Your task to perform on an android device: Show the shopping cart on bestbuy.com. Image 0: 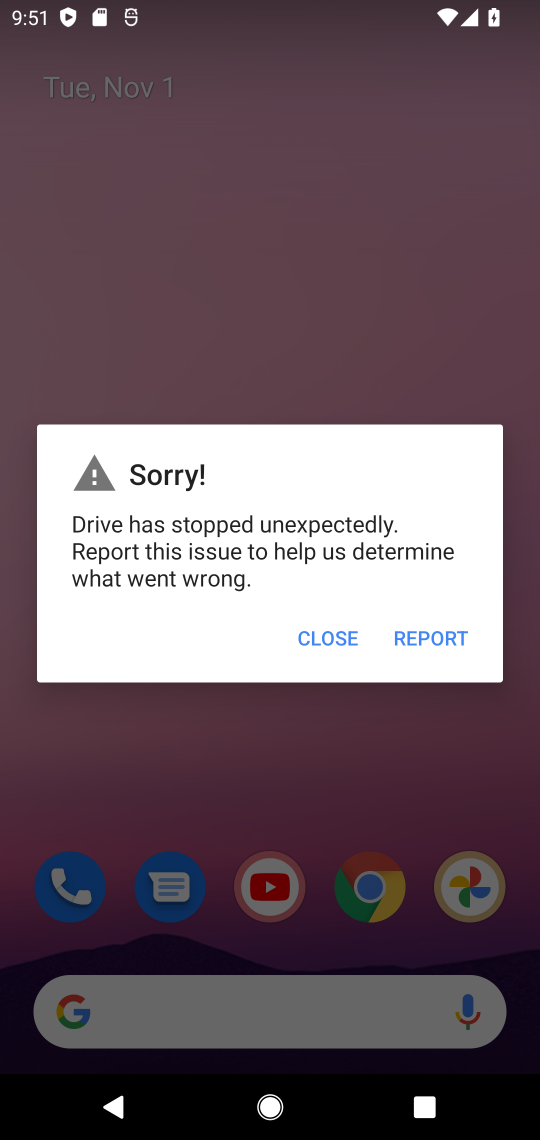
Step 0: press home button
Your task to perform on an android device: Show the shopping cart on bestbuy.com. Image 1: 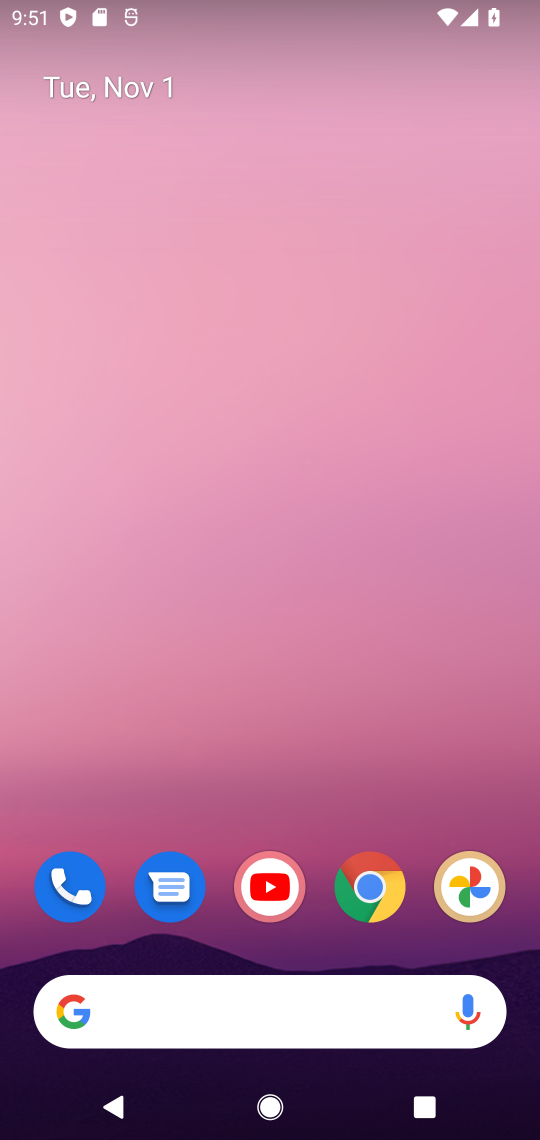
Step 1: click (379, 889)
Your task to perform on an android device: Show the shopping cart on bestbuy.com. Image 2: 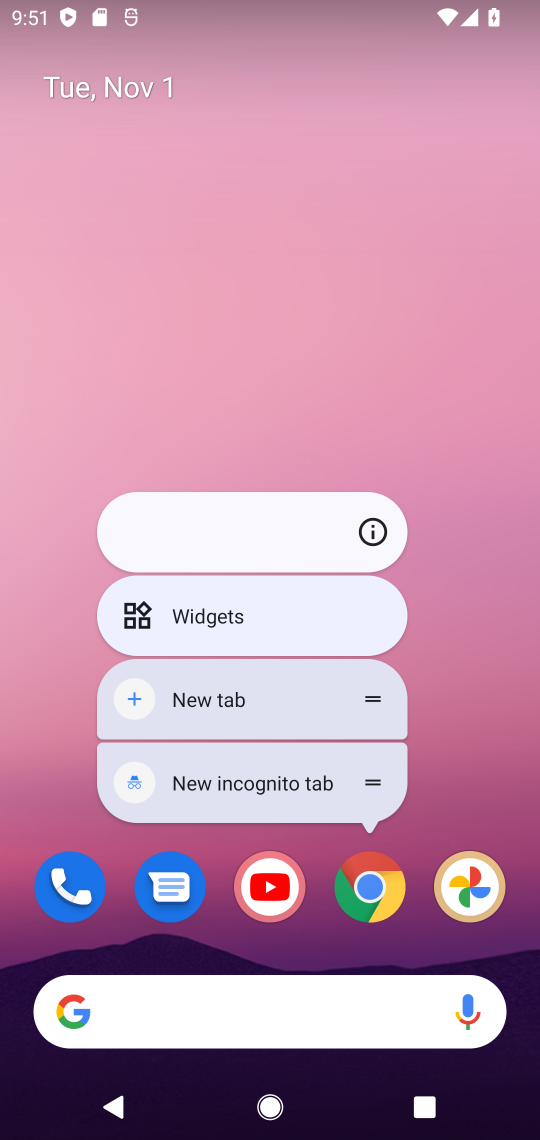
Step 2: click (391, 898)
Your task to perform on an android device: Show the shopping cart on bestbuy.com. Image 3: 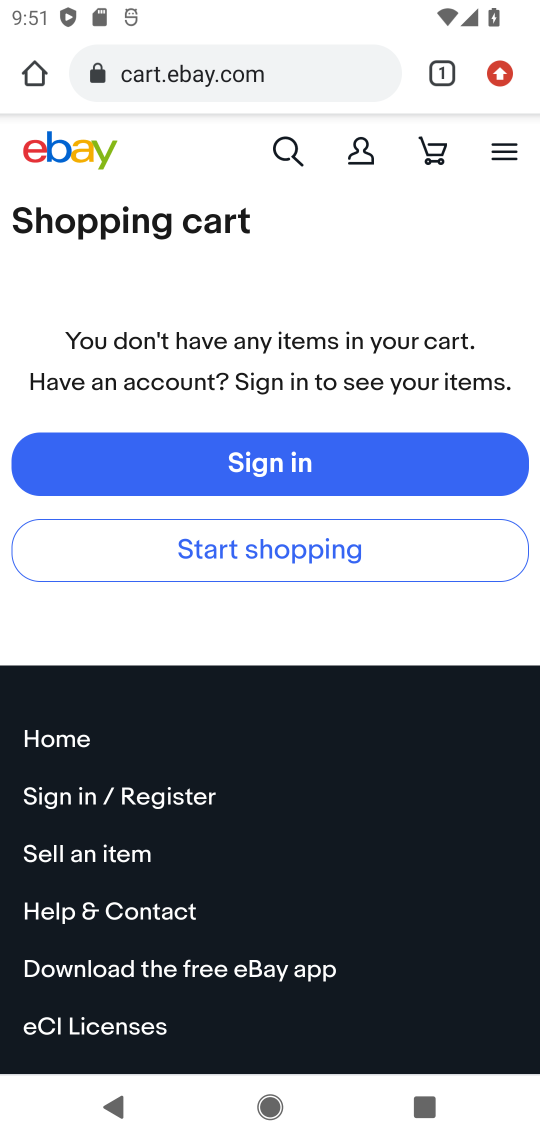
Step 3: click (296, 73)
Your task to perform on an android device: Show the shopping cart on bestbuy.com. Image 4: 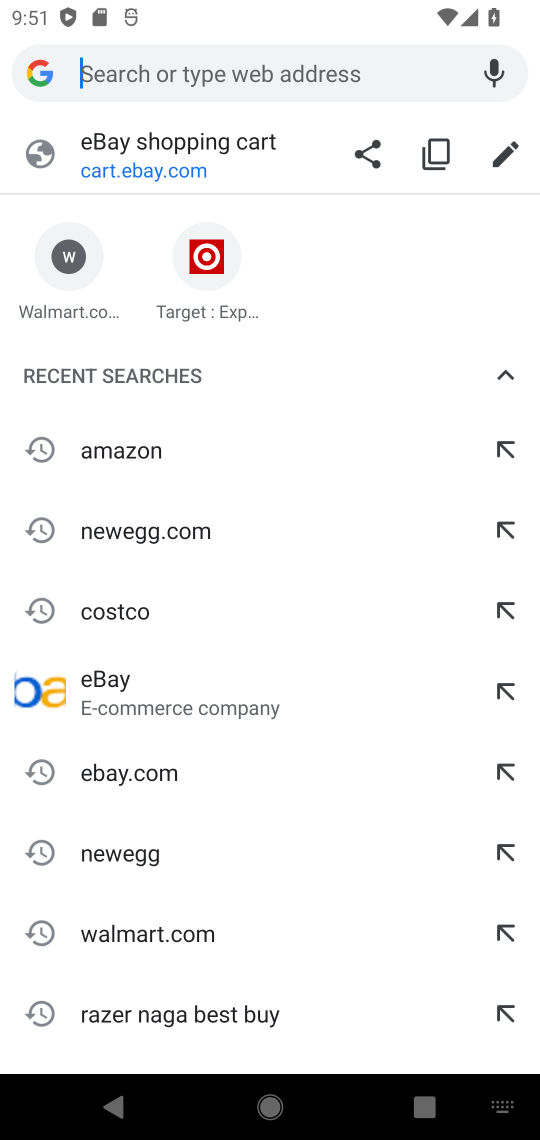
Step 4: type "bestbuy.com"
Your task to perform on an android device: Show the shopping cart on bestbuy.com. Image 5: 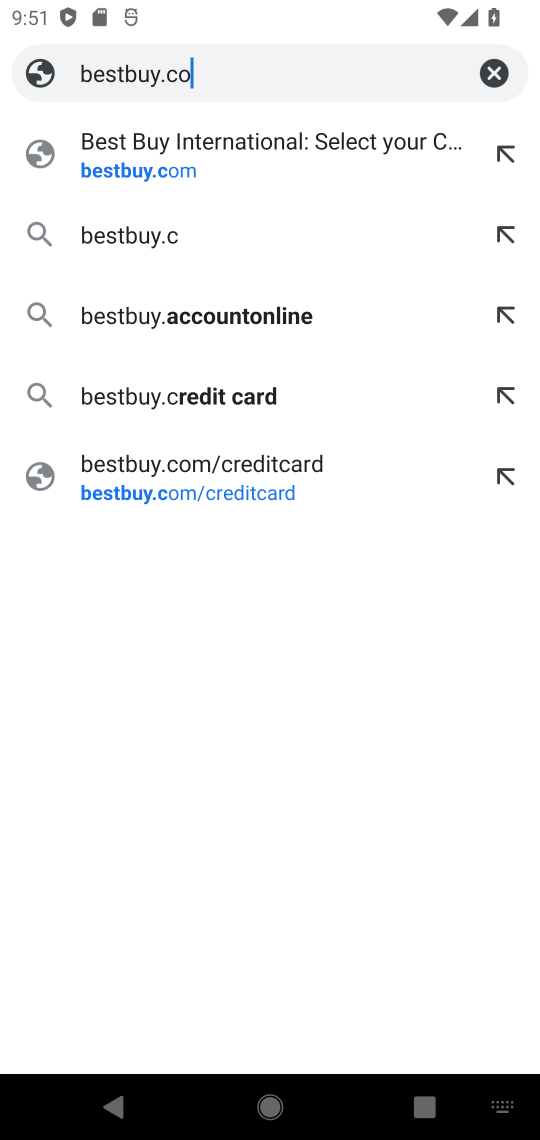
Step 5: press enter
Your task to perform on an android device: Show the shopping cart on bestbuy.com. Image 6: 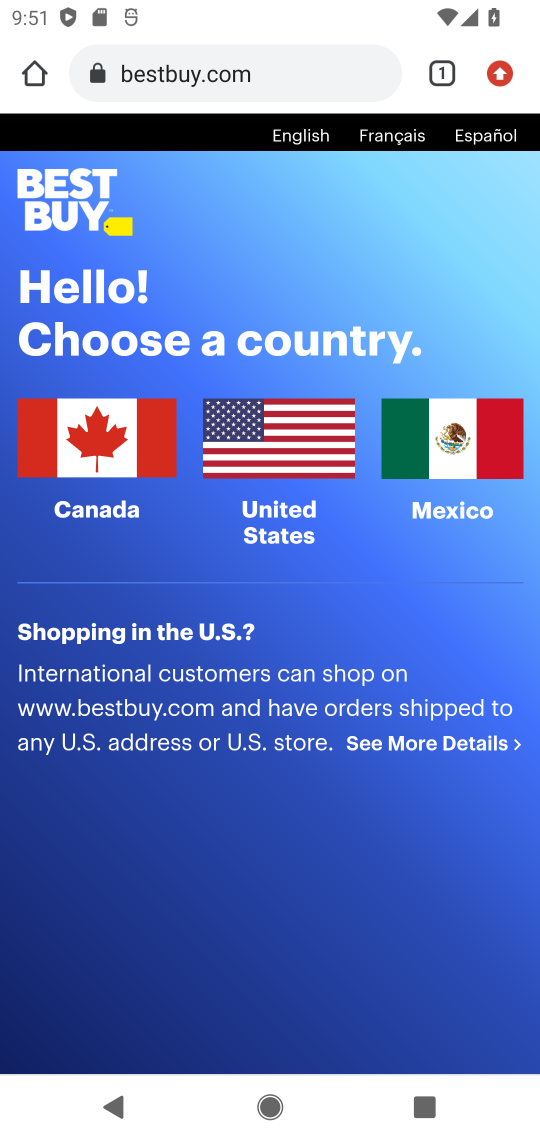
Step 6: click (275, 447)
Your task to perform on an android device: Show the shopping cart on bestbuy.com. Image 7: 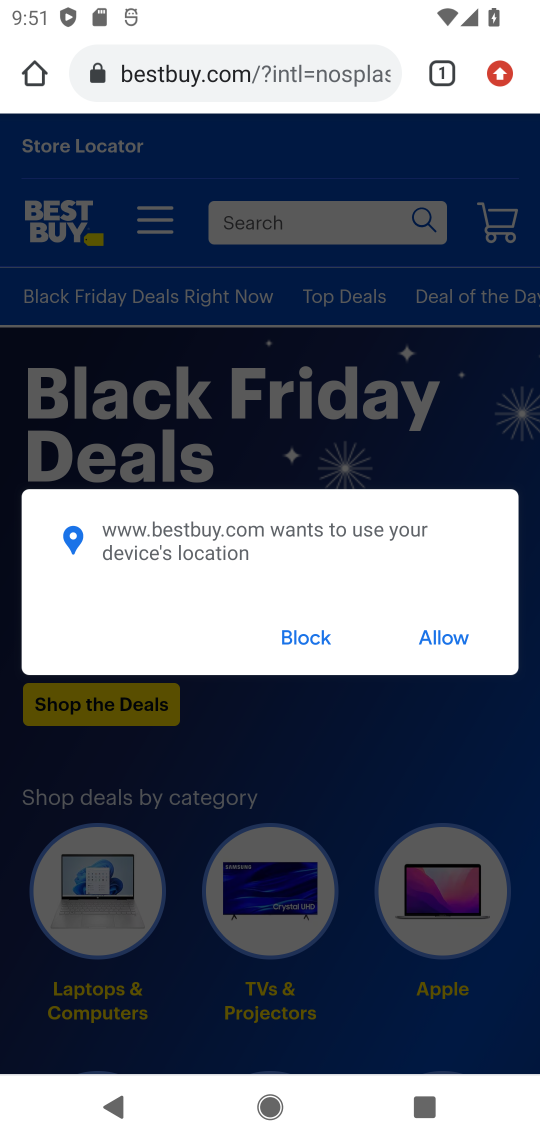
Step 7: click (318, 640)
Your task to perform on an android device: Show the shopping cart on bestbuy.com. Image 8: 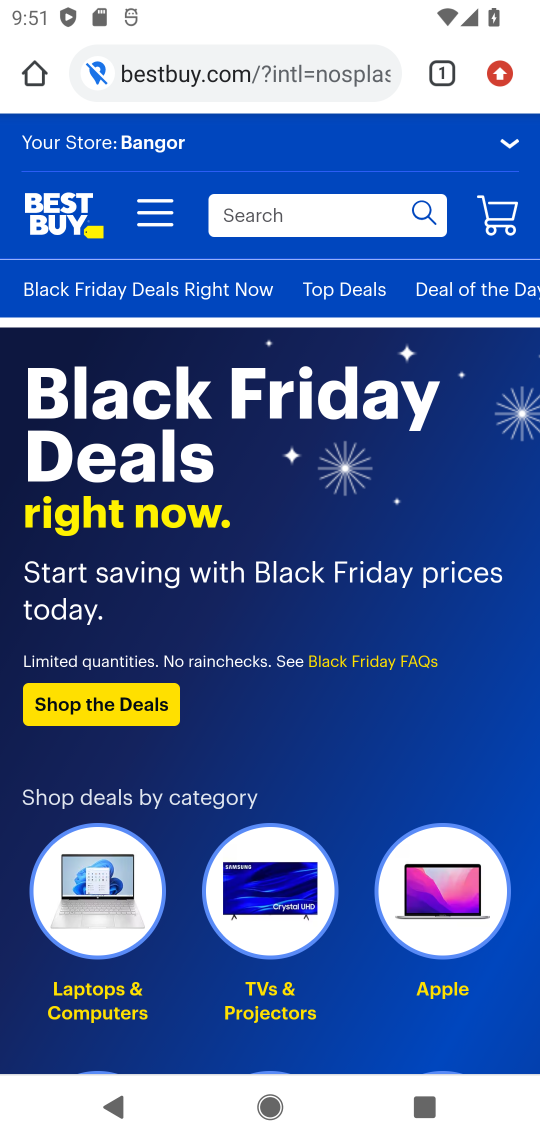
Step 8: click (494, 216)
Your task to perform on an android device: Show the shopping cart on bestbuy.com. Image 9: 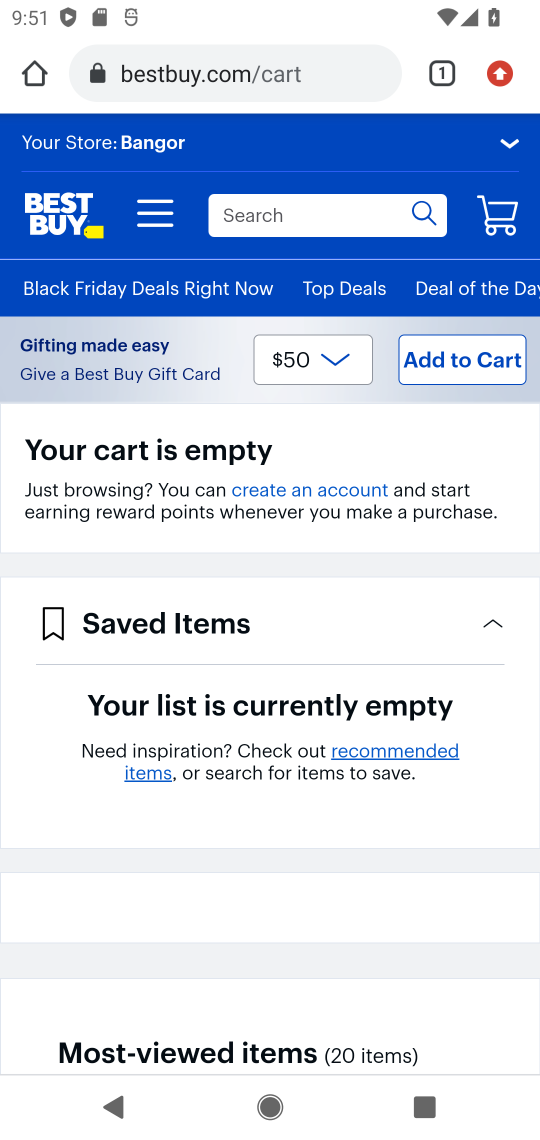
Step 9: click (128, 208)
Your task to perform on an android device: Show the shopping cart on bestbuy.com. Image 10: 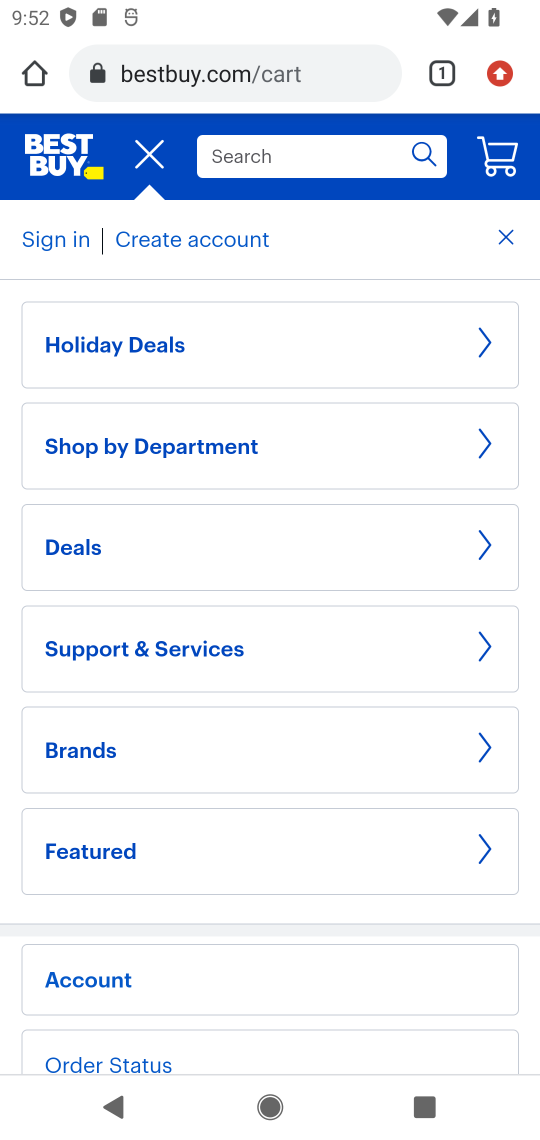
Step 10: click (495, 143)
Your task to perform on an android device: Show the shopping cart on bestbuy.com. Image 11: 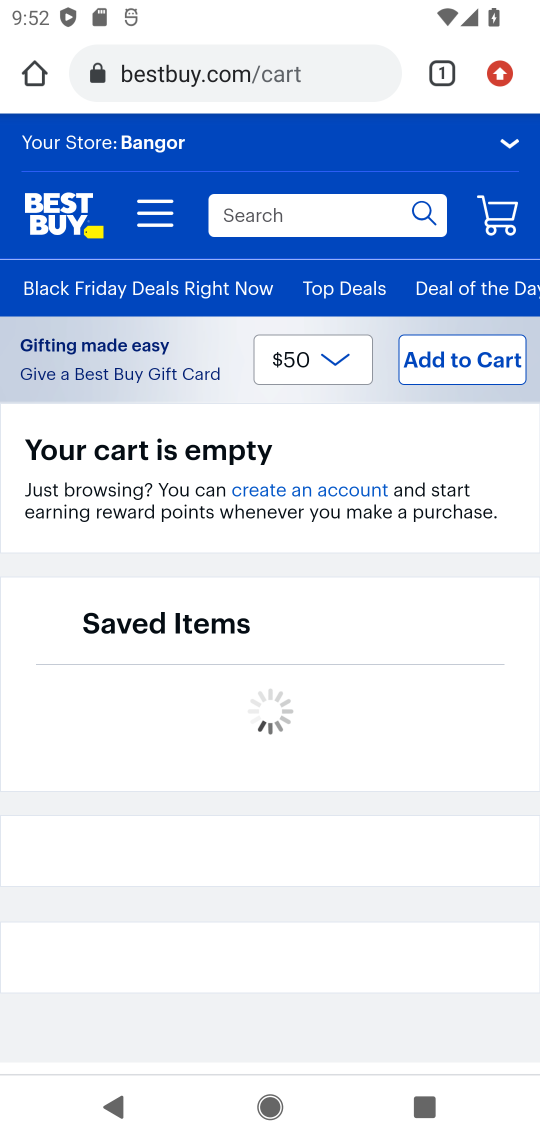
Step 11: task complete